Your task to perform on an android device: toggle pop-ups in chrome Image 0: 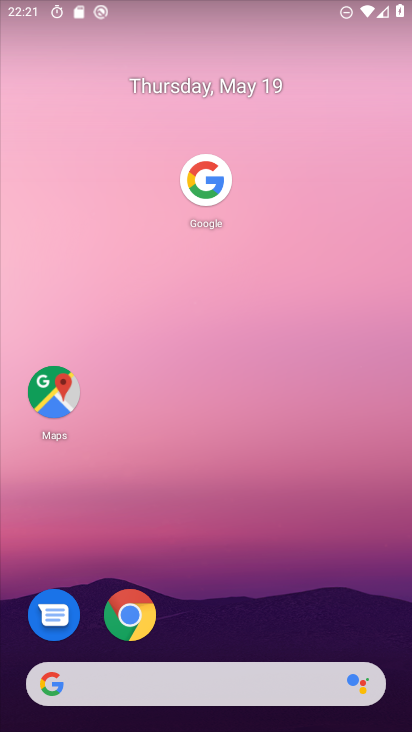
Step 0: click (133, 616)
Your task to perform on an android device: toggle pop-ups in chrome Image 1: 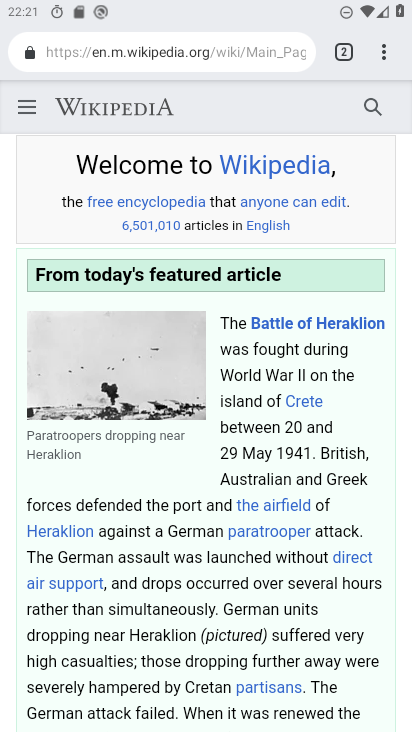
Step 1: click (374, 56)
Your task to perform on an android device: toggle pop-ups in chrome Image 2: 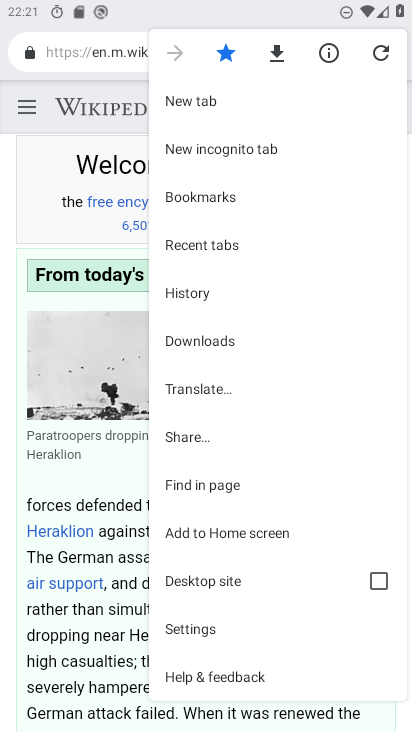
Step 2: click (216, 627)
Your task to perform on an android device: toggle pop-ups in chrome Image 3: 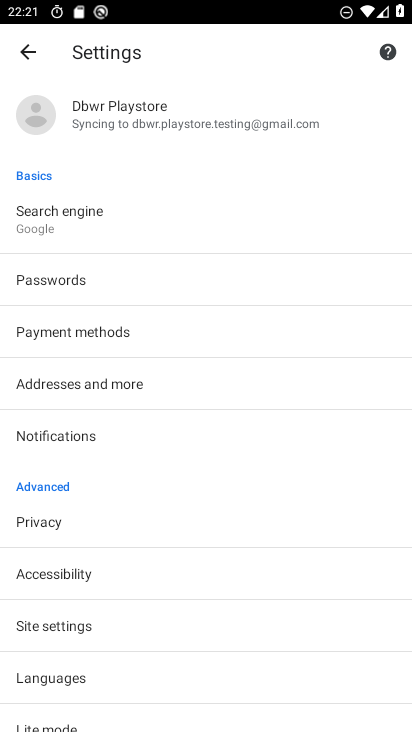
Step 3: click (120, 626)
Your task to perform on an android device: toggle pop-ups in chrome Image 4: 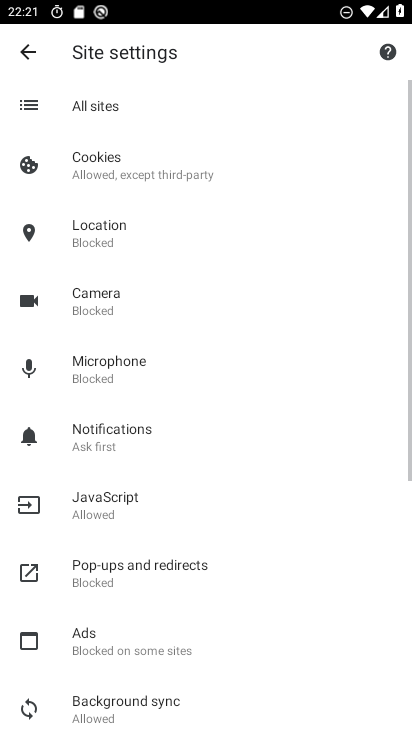
Step 4: click (145, 583)
Your task to perform on an android device: toggle pop-ups in chrome Image 5: 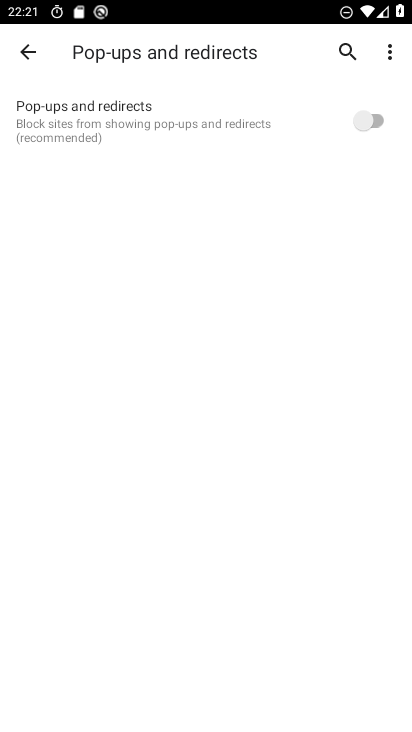
Step 5: click (366, 117)
Your task to perform on an android device: toggle pop-ups in chrome Image 6: 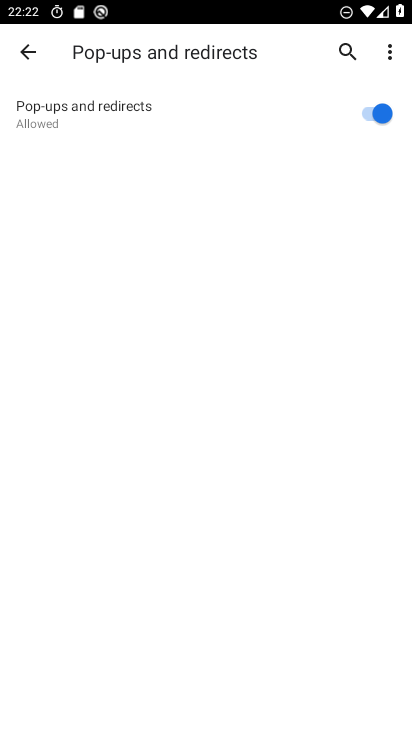
Step 6: task complete